Your task to perform on an android device: Open Yahoo.com Image 0: 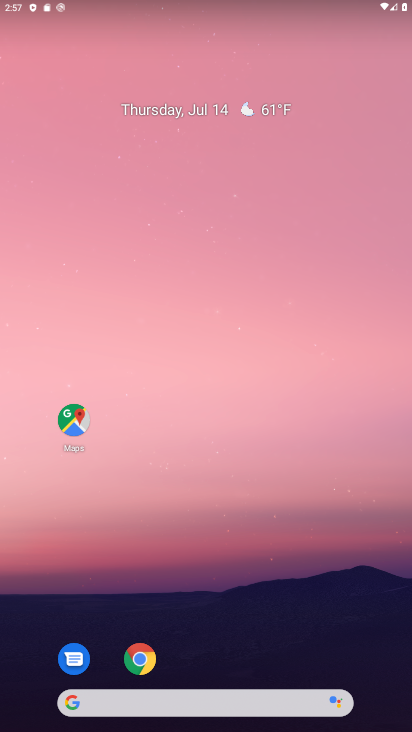
Step 0: click (140, 661)
Your task to perform on an android device: Open Yahoo.com Image 1: 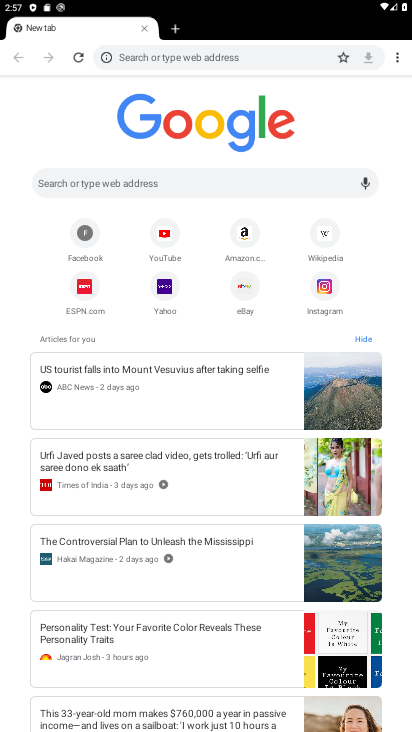
Step 1: click (168, 290)
Your task to perform on an android device: Open Yahoo.com Image 2: 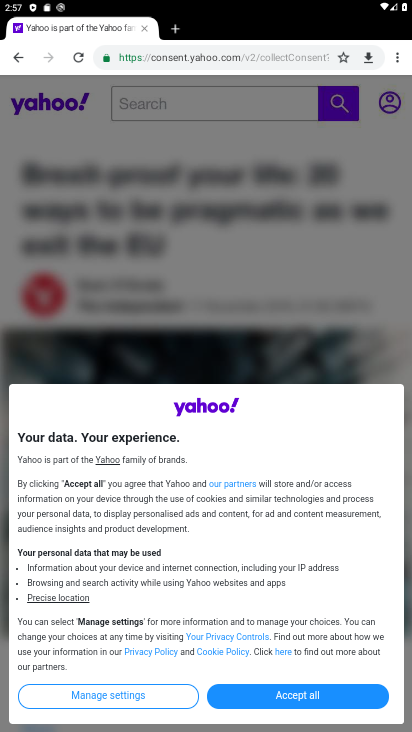
Step 2: click (294, 696)
Your task to perform on an android device: Open Yahoo.com Image 3: 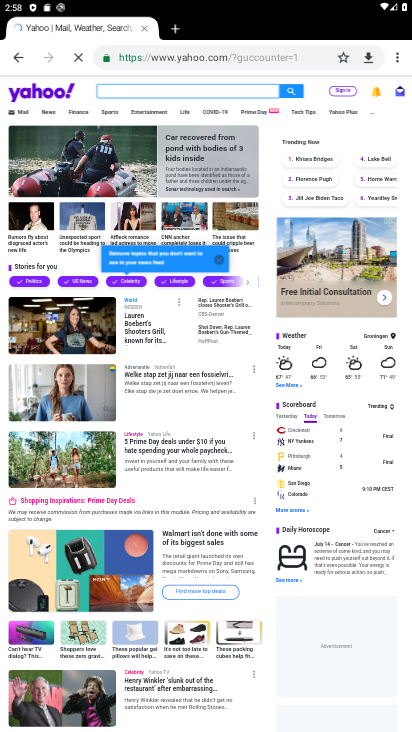
Step 3: task complete